Your task to perform on an android device: move an email to a new category in the gmail app Image 0: 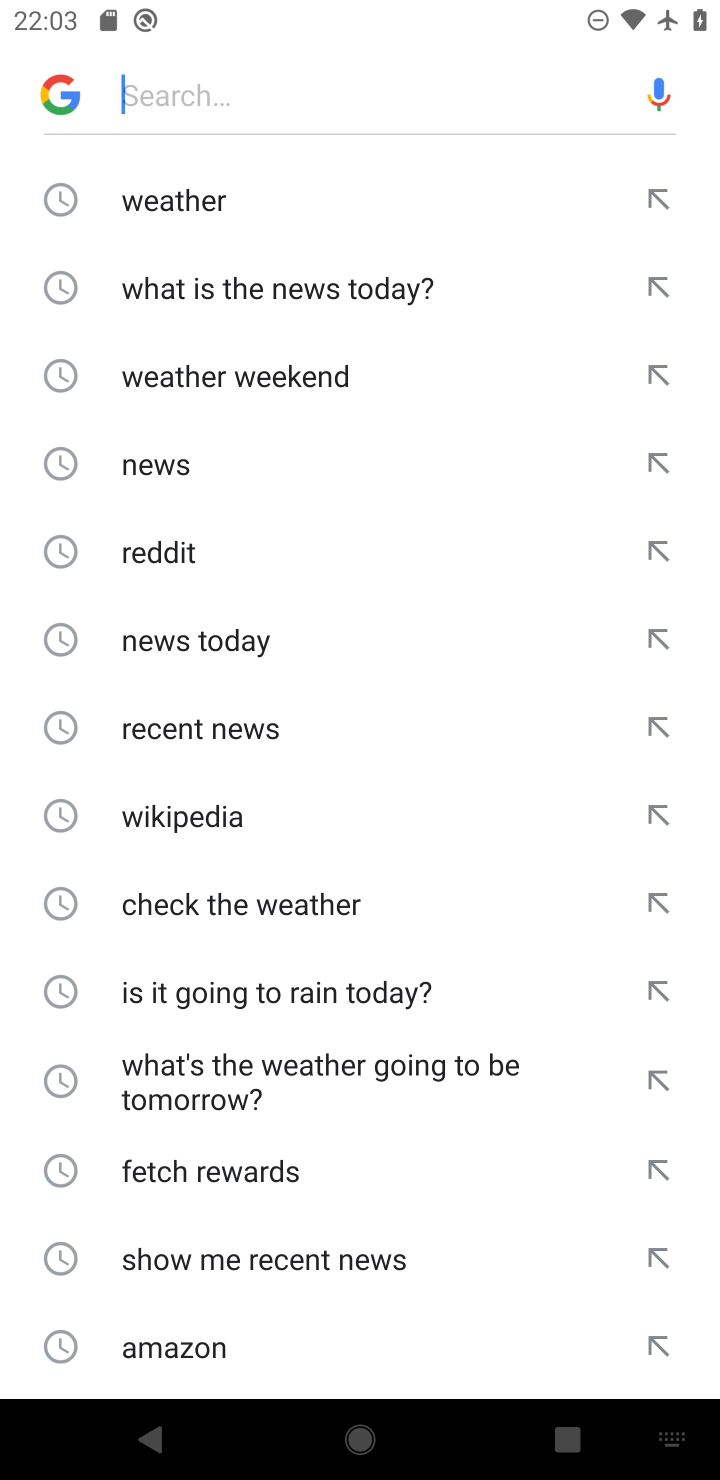
Step 0: press home button
Your task to perform on an android device: move an email to a new category in the gmail app Image 1: 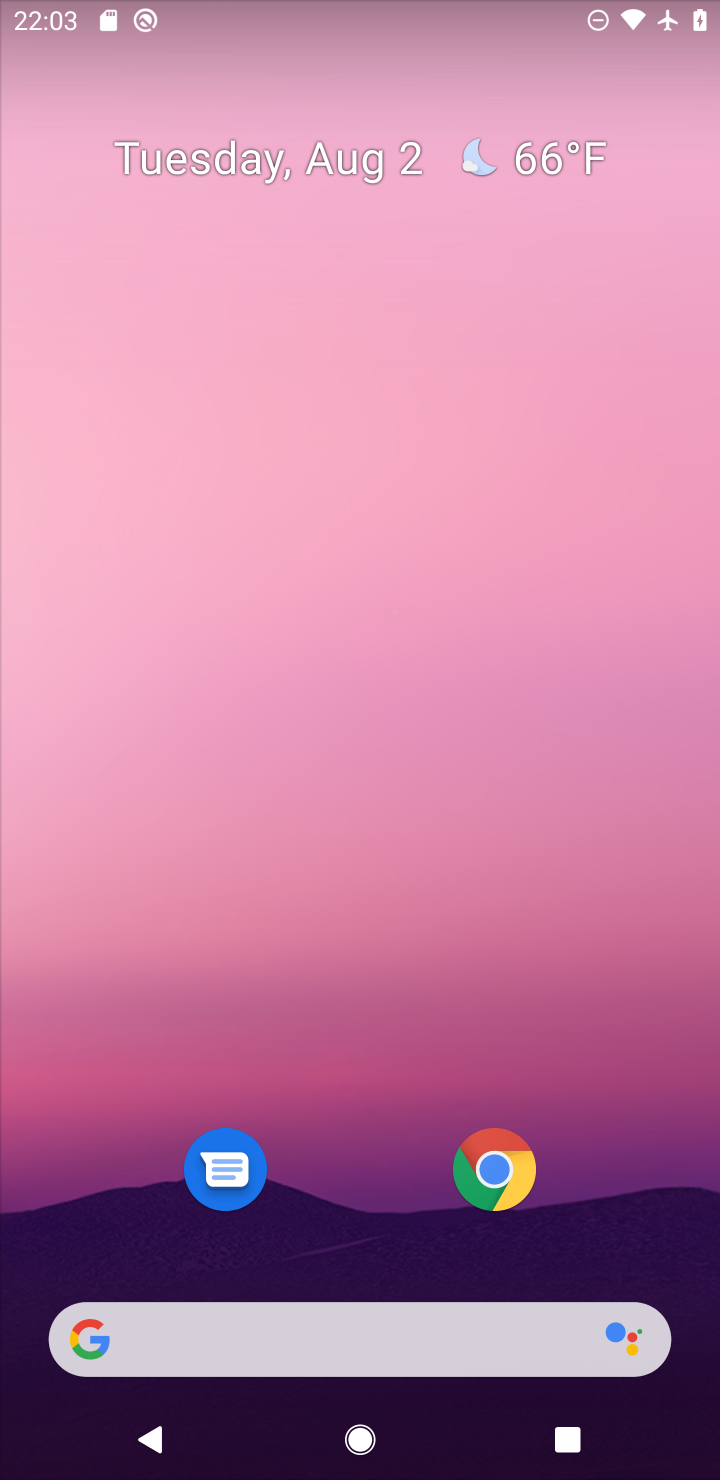
Step 1: drag from (383, 1085) to (388, 343)
Your task to perform on an android device: move an email to a new category in the gmail app Image 2: 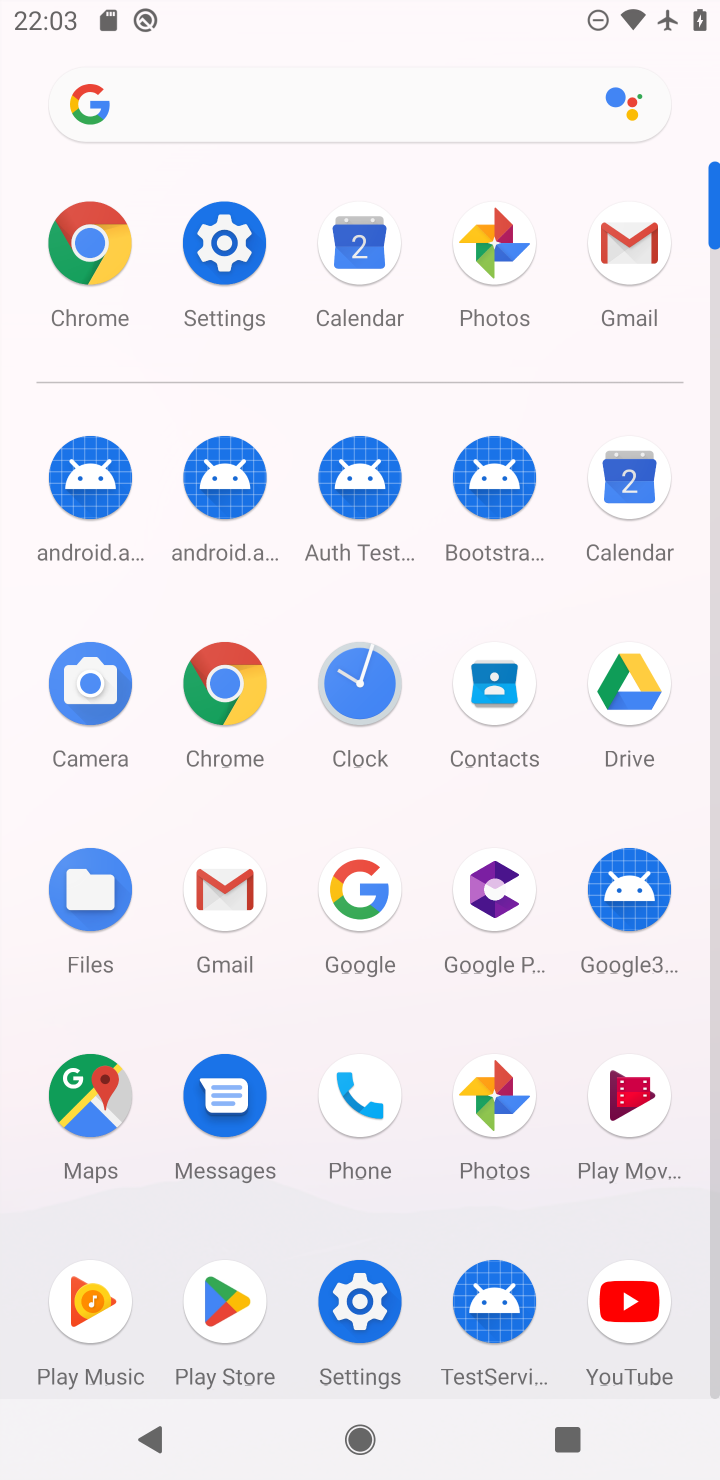
Step 2: click (213, 890)
Your task to perform on an android device: move an email to a new category in the gmail app Image 3: 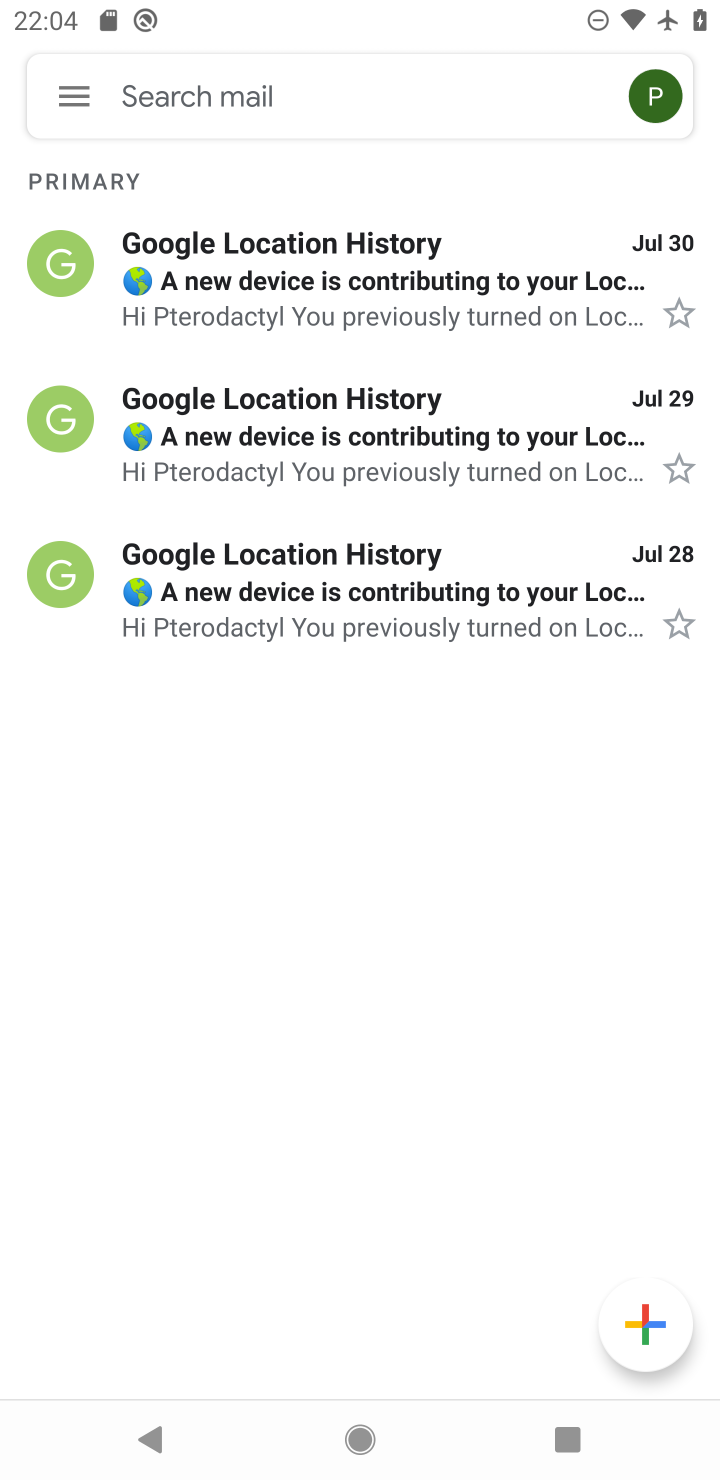
Step 3: click (333, 434)
Your task to perform on an android device: move an email to a new category in the gmail app Image 4: 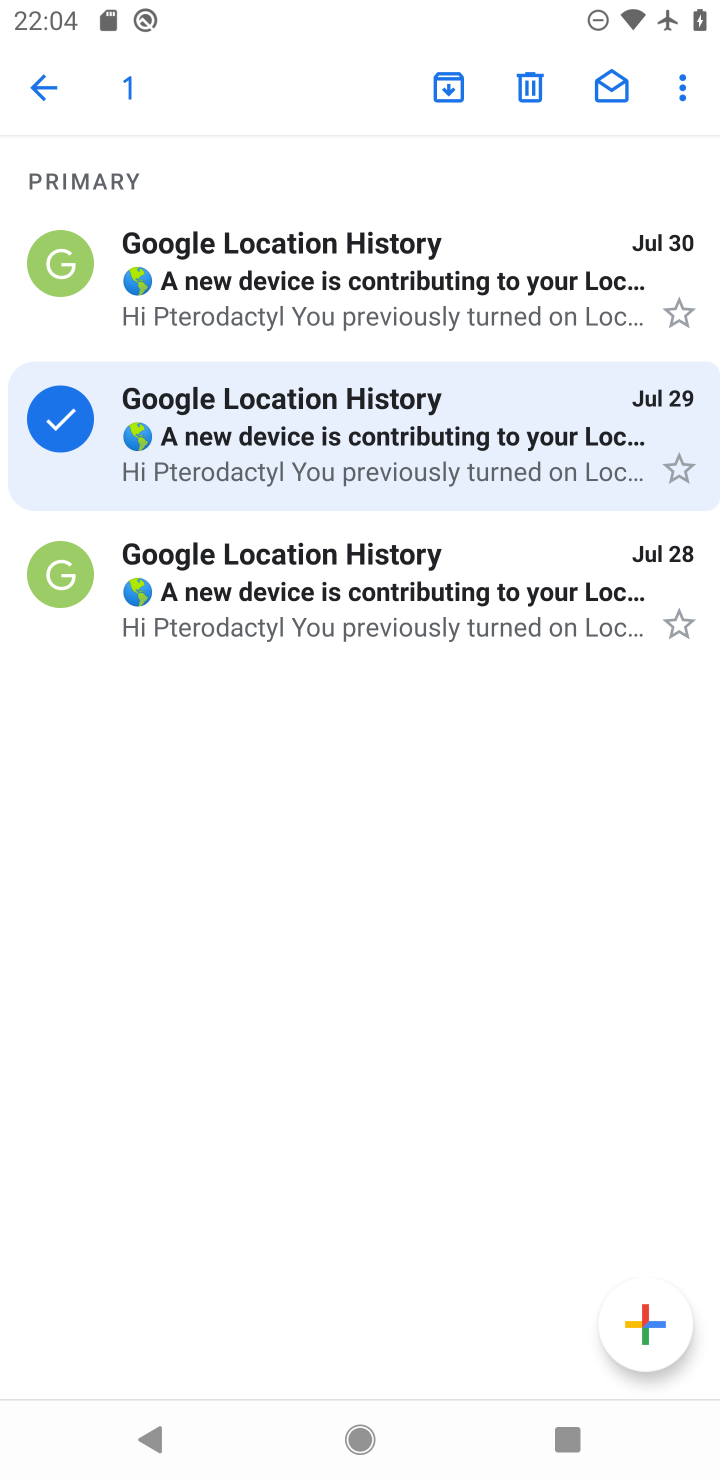
Step 4: click (677, 93)
Your task to perform on an android device: move an email to a new category in the gmail app Image 5: 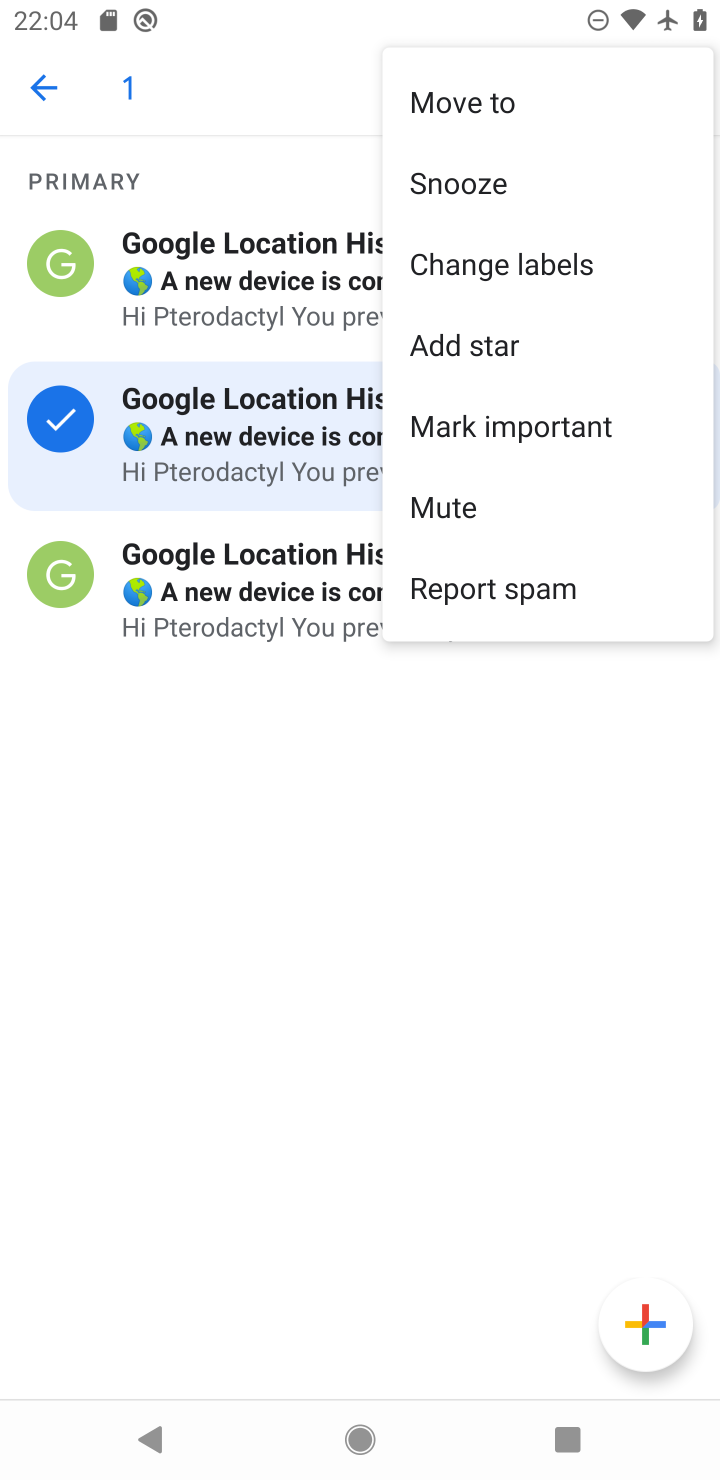
Step 5: click (494, 104)
Your task to perform on an android device: move an email to a new category in the gmail app Image 6: 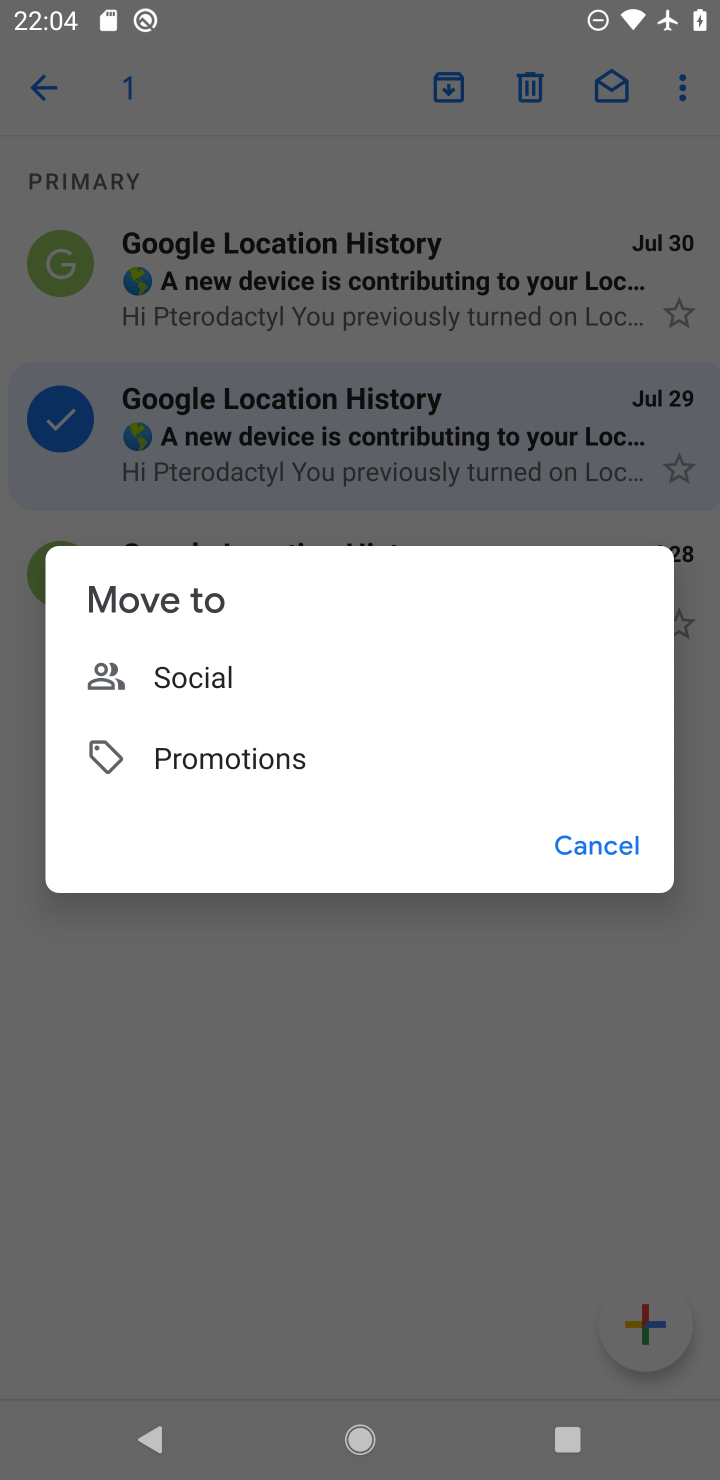
Step 6: click (206, 760)
Your task to perform on an android device: move an email to a new category in the gmail app Image 7: 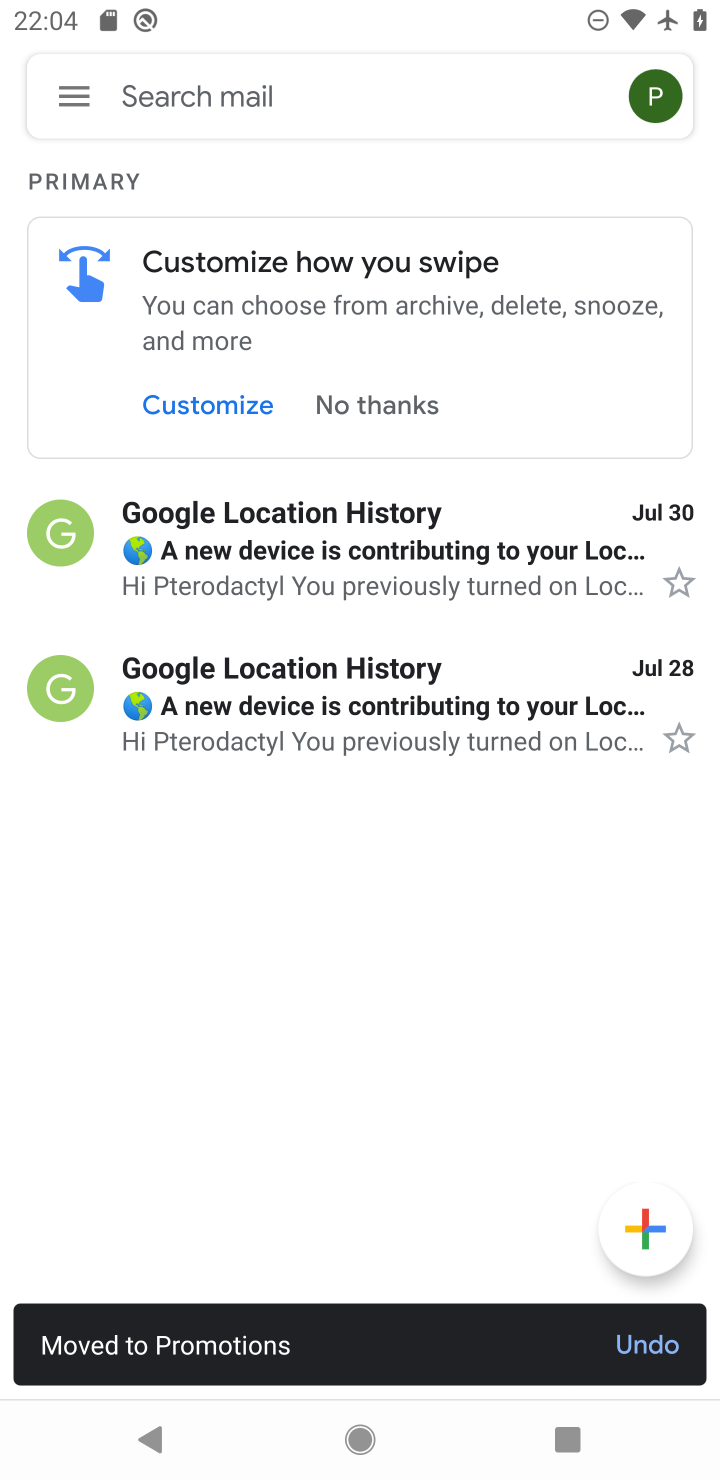
Step 7: task complete